Your task to perform on an android device: Go to wifi settings Image 0: 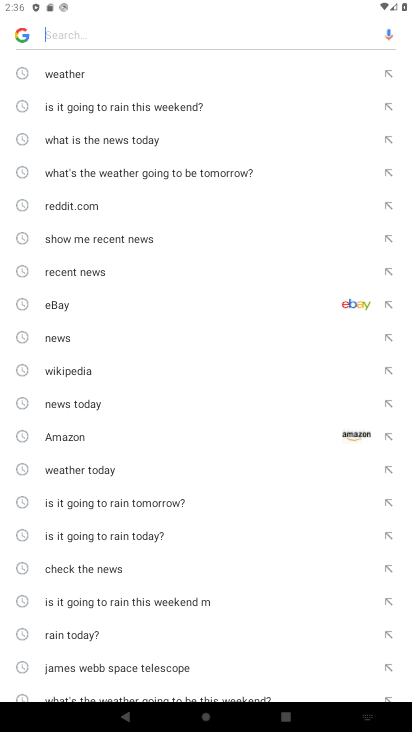
Step 0: press back button
Your task to perform on an android device: Go to wifi settings Image 1: 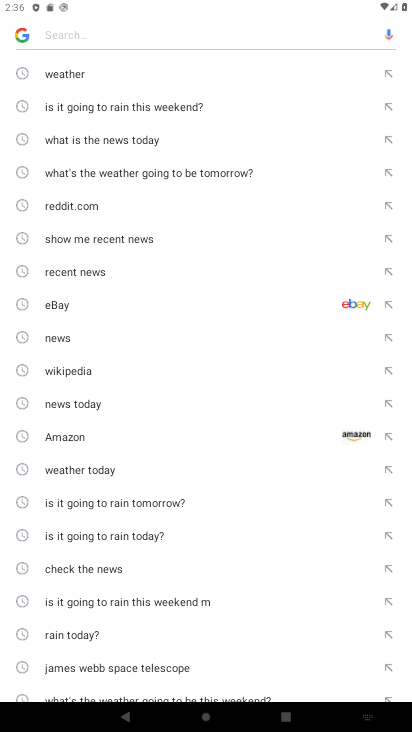
Step 1: press back button
Your task to perform on an android device: Go to wifi settings Image 2: 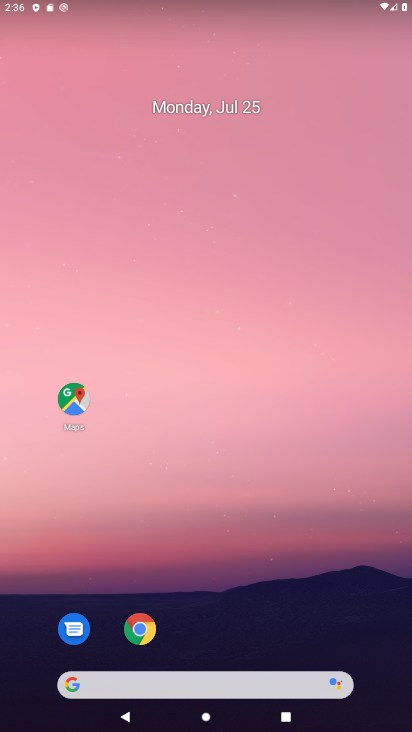
Step 2: drag from (212, 601) to (232, 91)
Your task to perform on an android device: Go to wifi settings Image 3: 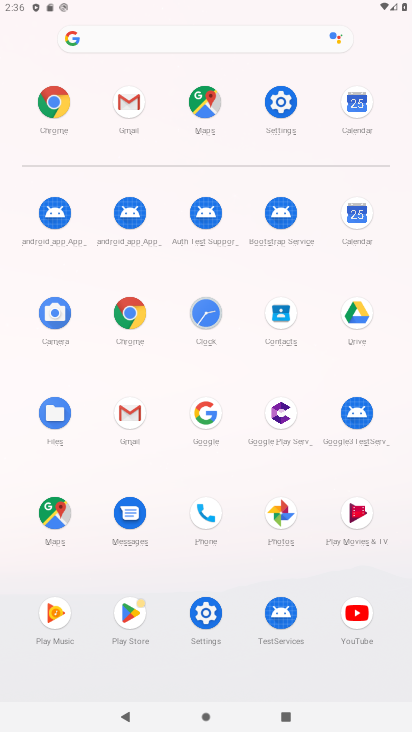
Step 3: click (199, 611)
Your task to perform on an android device: Go to wifi settings Image 4: 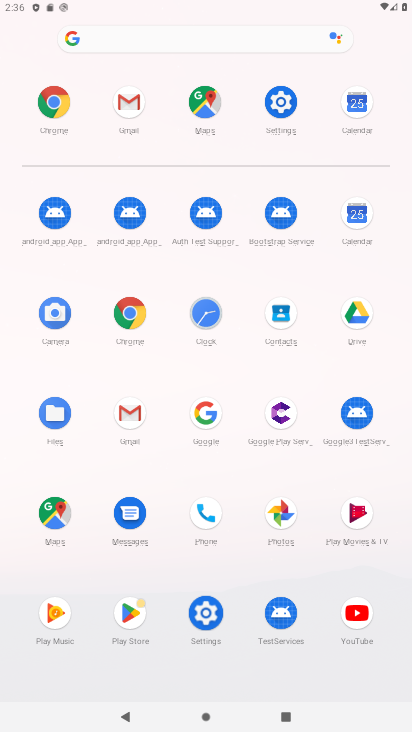
Step 4: click (199, 617)
Your task to perform on an android device: Go to wifi settings Image 5: 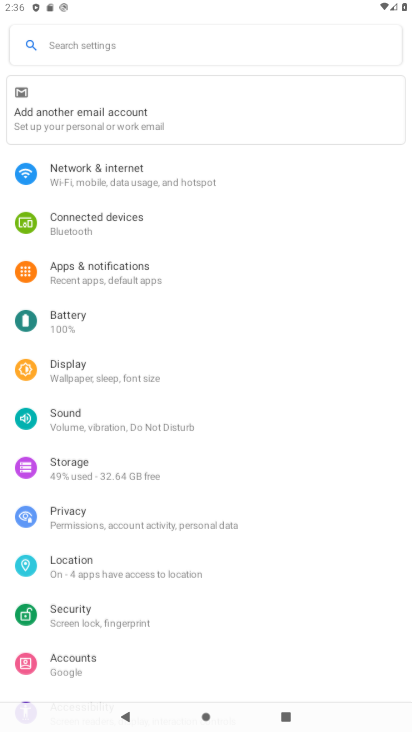
Step 5: click (200, 618)
Your task to perform on an android device: Go to wifi settings Image 6: 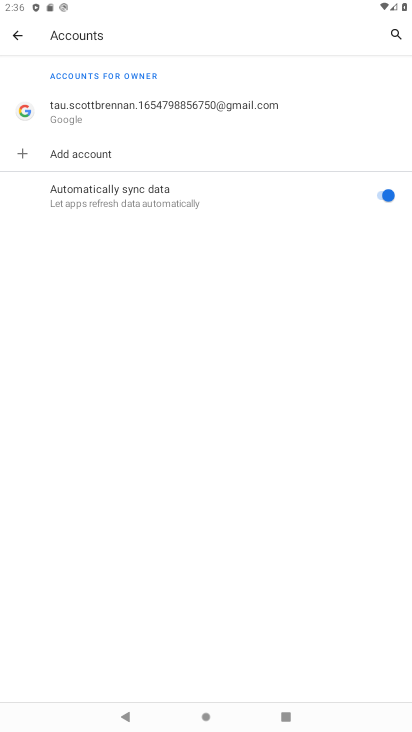
Step 6: click (18, 32)
Your task to perform on an android device: Go to wifi settings Image 7: 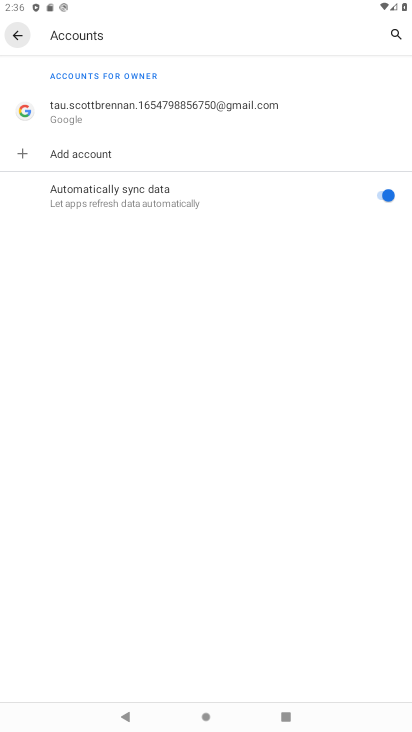
Step 7: click (15, 32)
Your task to perform on an android device: Go to wifi settings Image 8: 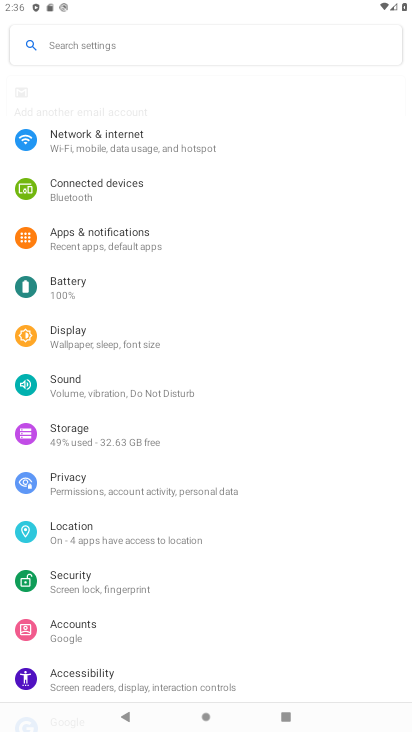
Step 8: click (90, 105)
Your task to perform on an android device: Go to wifi settings Image 9: 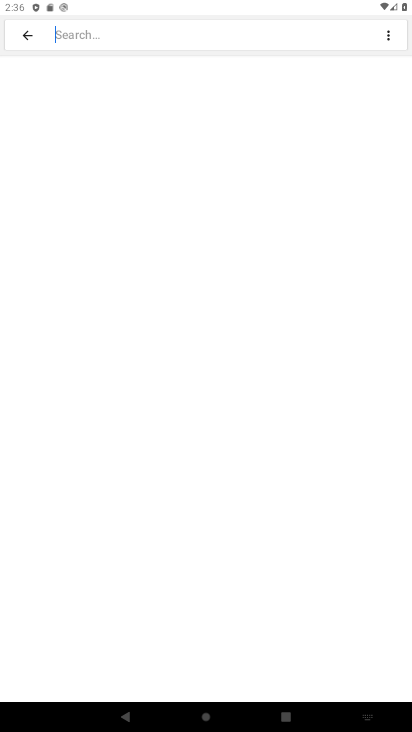
Step 9: click (20, 30)
Your task to perform on an android device: Go to wifi settings Image 10: 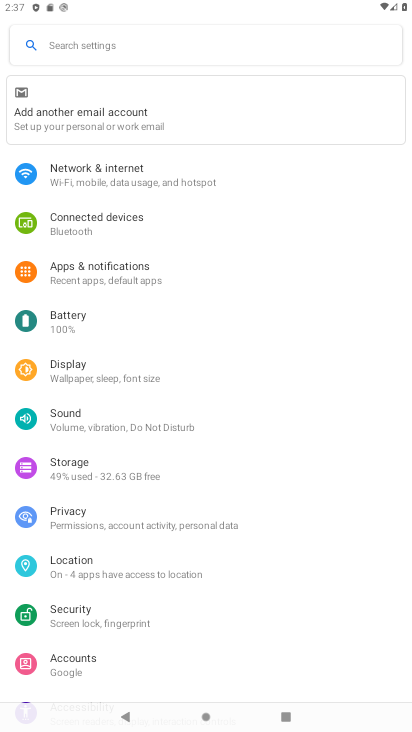
Step 10: click (94, 164)
Your task to perform on an android device: Go to wifi settings Image 11: 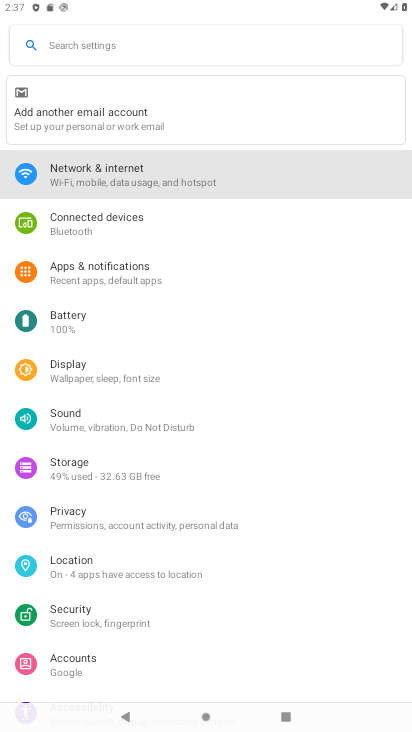
Step 11: click (94, 164)
Your task to perform on an android device: Go to wifi settings Image 12: 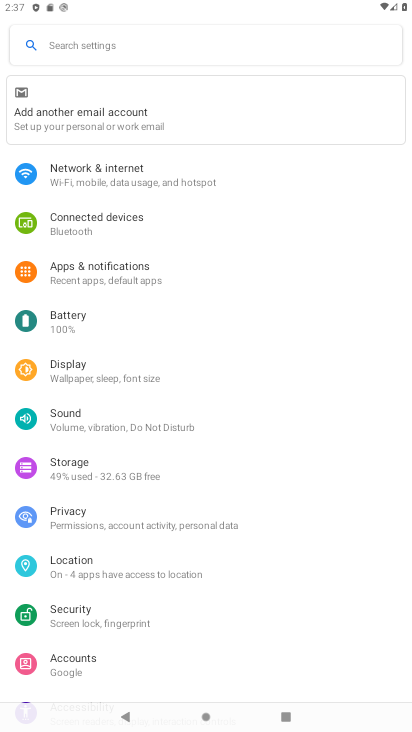
Step 12: click (92, 169)
Your task to perform on an android device: Go to wifi settings Image 13: 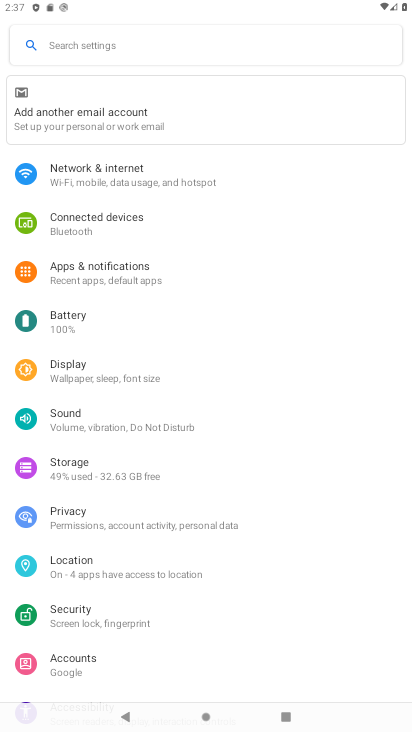
Step 13: click (92, 169)
Your task to perform on an android device: Go to wifi settings Image 14: 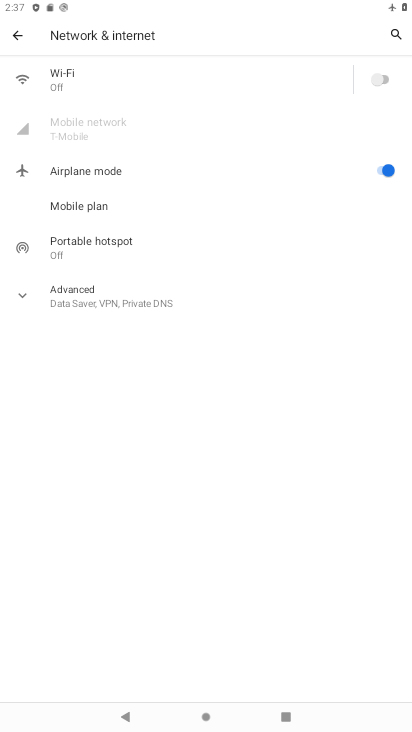
Step 14: click (92, 169)
Your task to perform on an android device: Go to wifi settings Image 15: 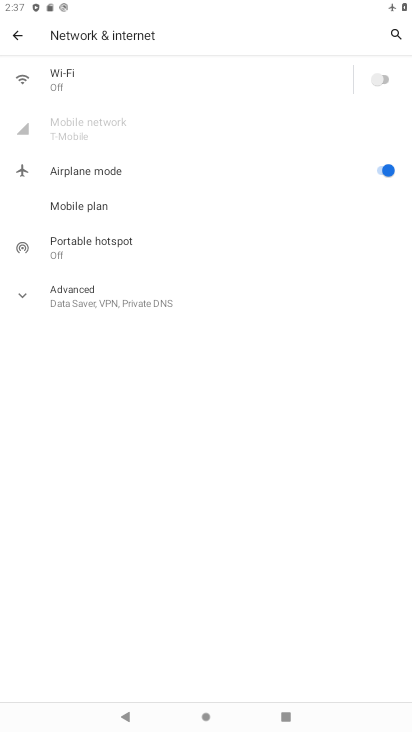
Step 15: click (92, 169)
Your task to perform on an android device: Go to wifi settings Image 16: 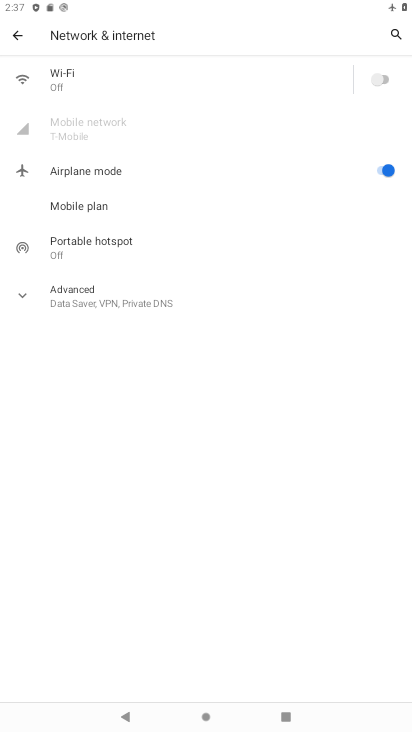
Step 16: task complete